Your task to perform on an android device: Clear all items from cart on bestbuy.com. Search for panasonic triple a on bestbuy.com, select the first entry, and add it to the cart. Image 0: 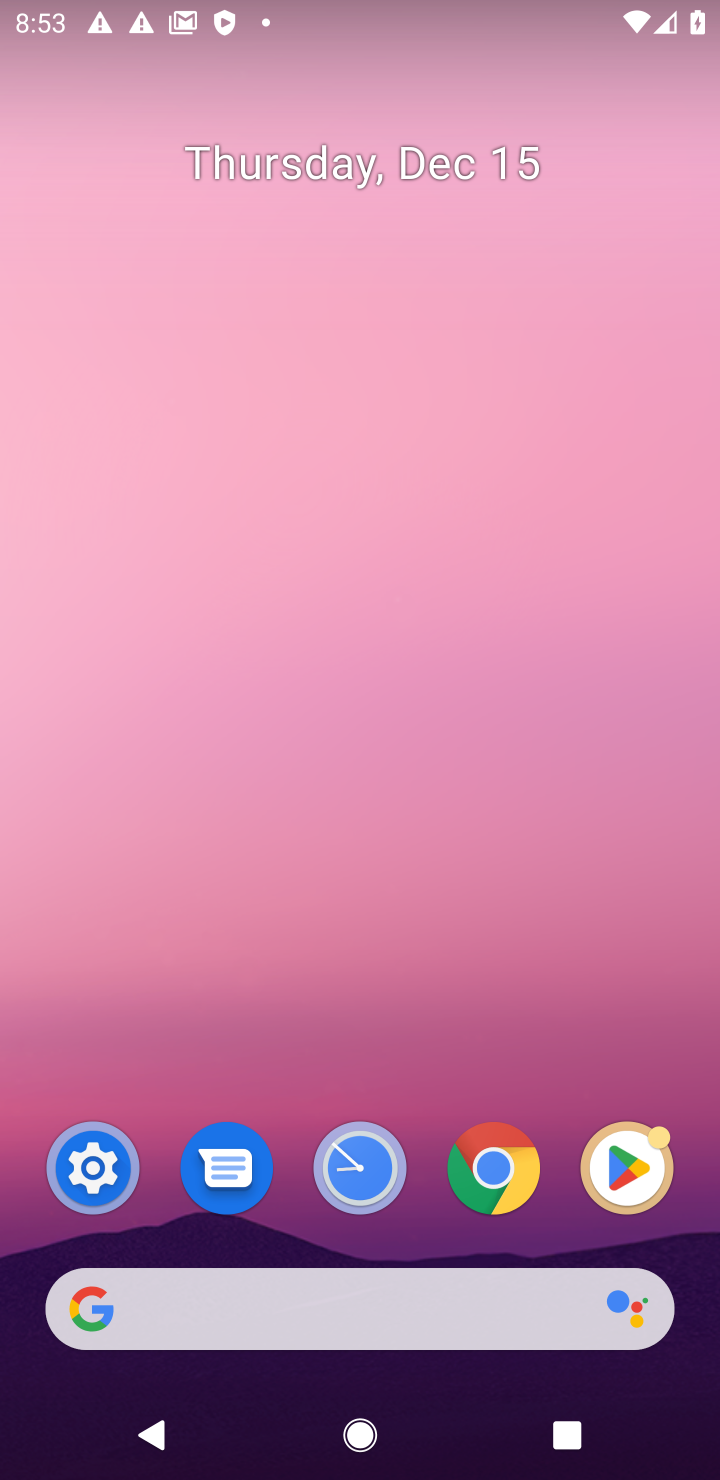
Step 0: task complete